Your task to perform on an android device: add a contact Image 0: 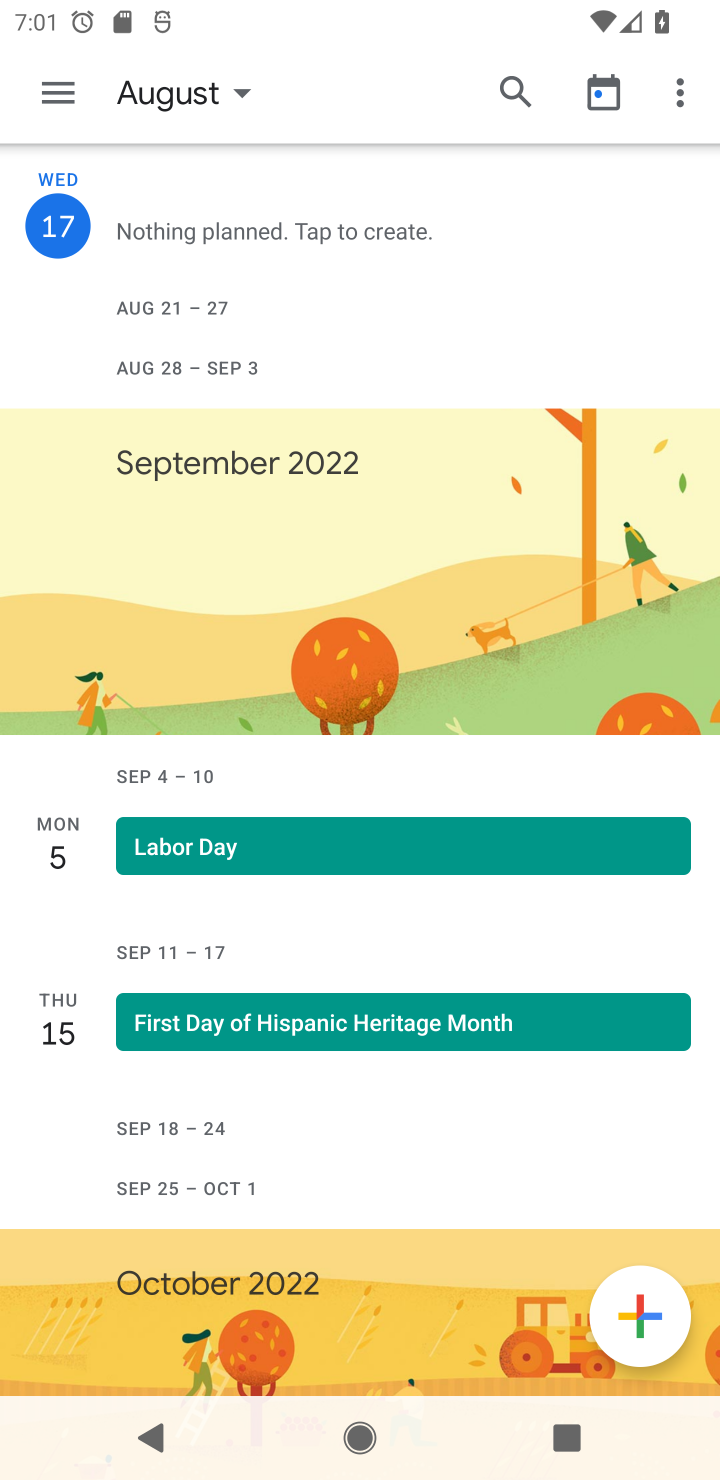
Step 0: press home button
Your task to perform on an android device: add a contact Image 1: 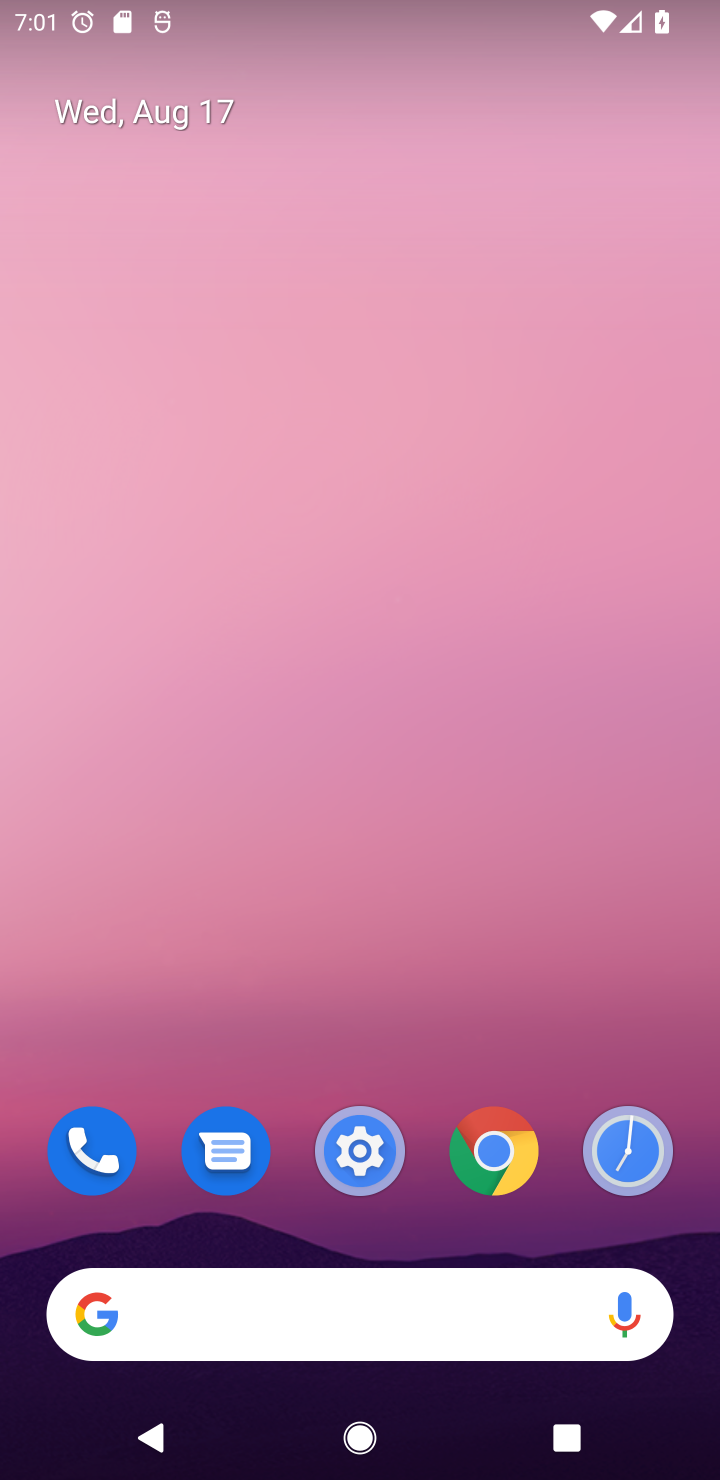
Step 1: drag from (415, 1219) to (437, 715)
Your task to perform on an android device: add a contact Image 2: 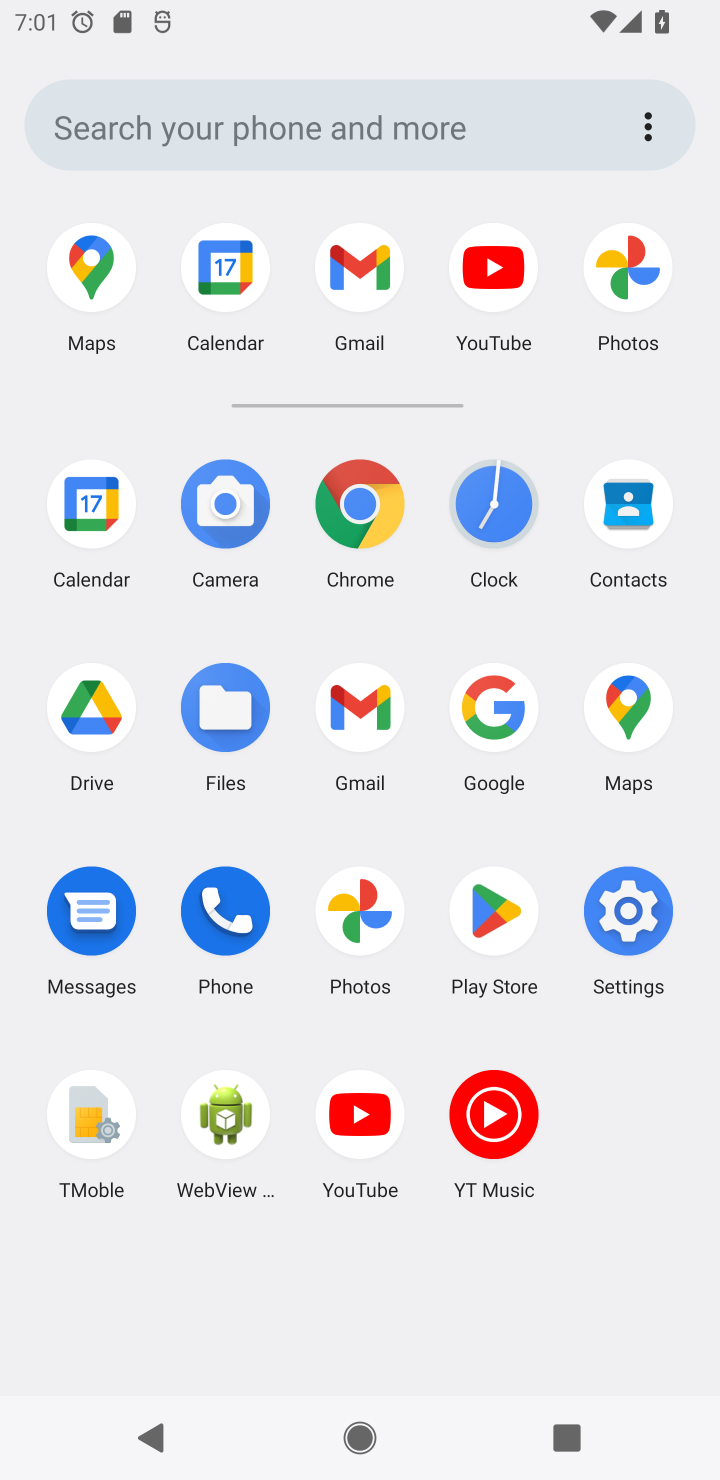
Step 2: click (628, 541)
Your task to perform on an android device: add a contact Image 3: 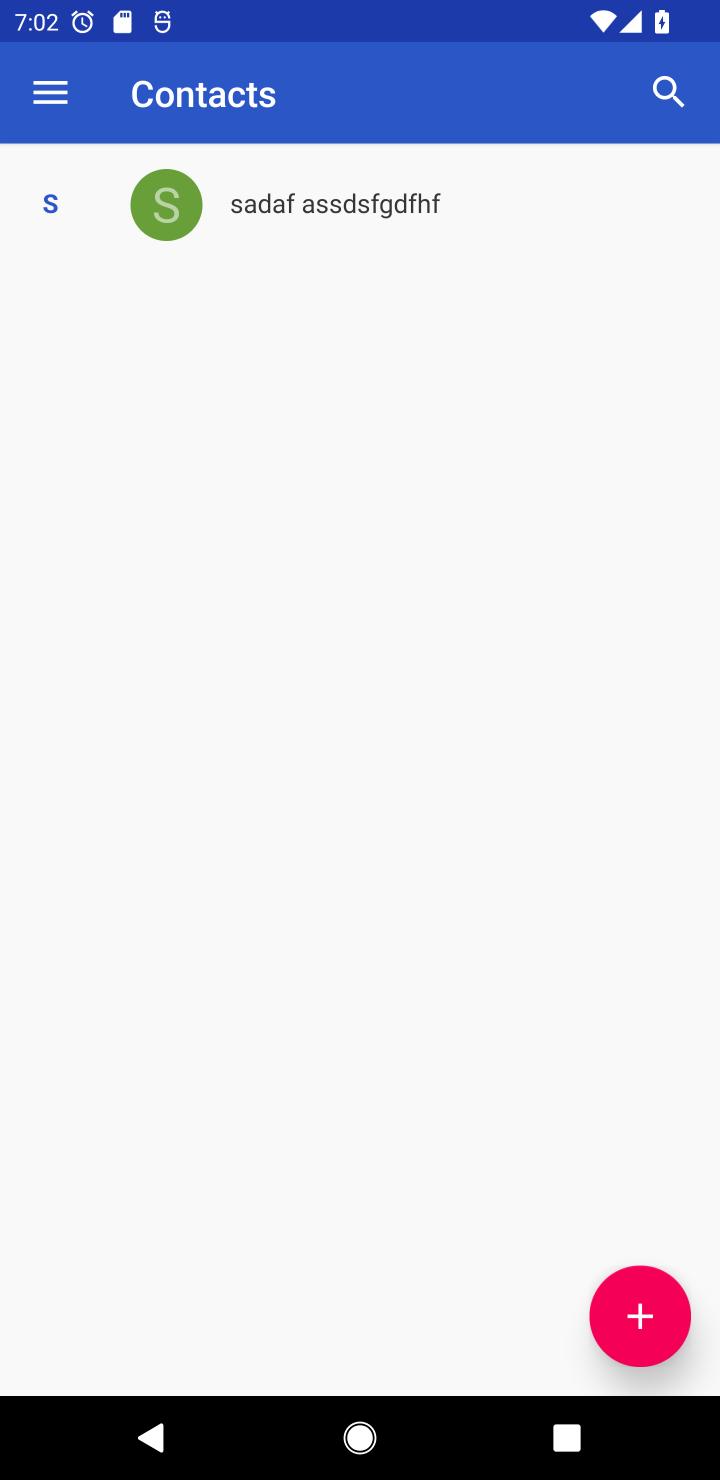
Step 3: click (643, 1284)
Your task to perform on an android device: add a contact Image 4: 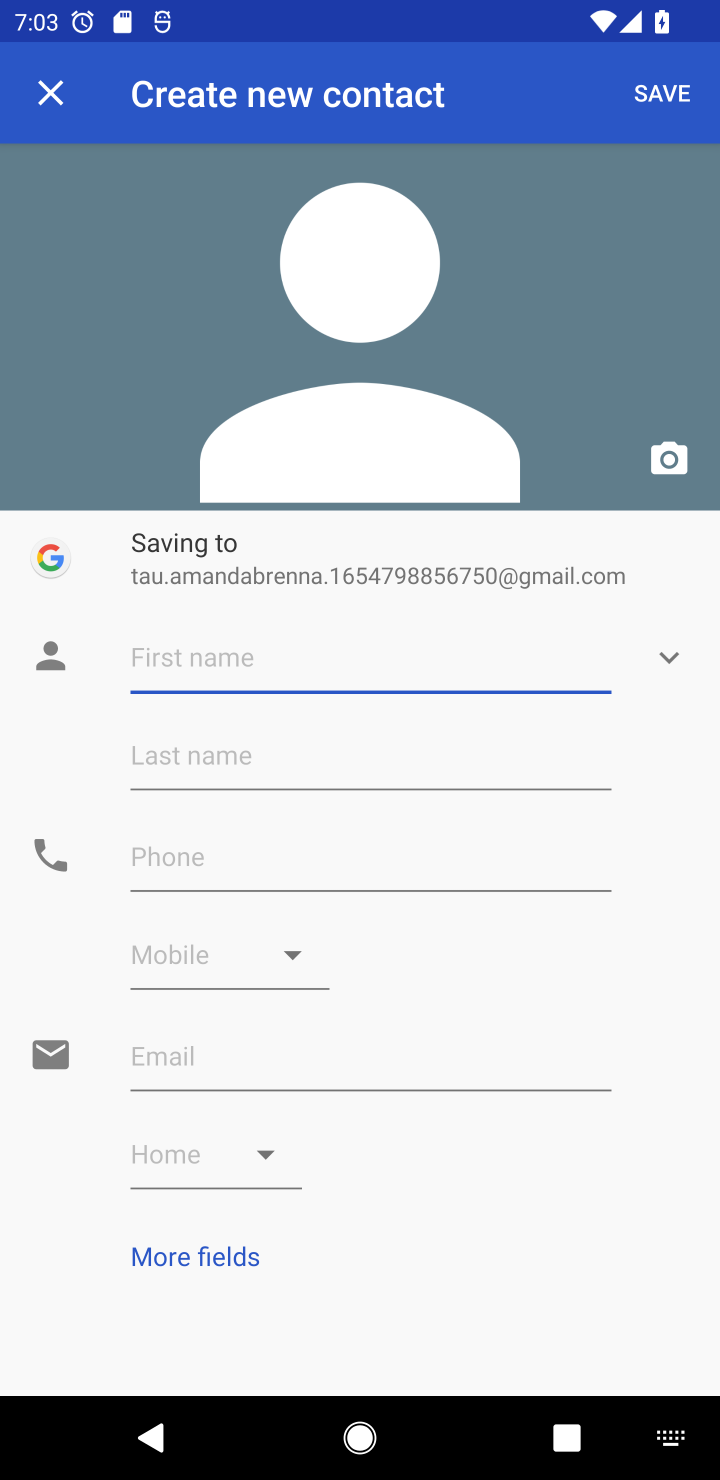
Step 4: type "defwrs"
Your task to perform on an android device: add a contact Image 5: 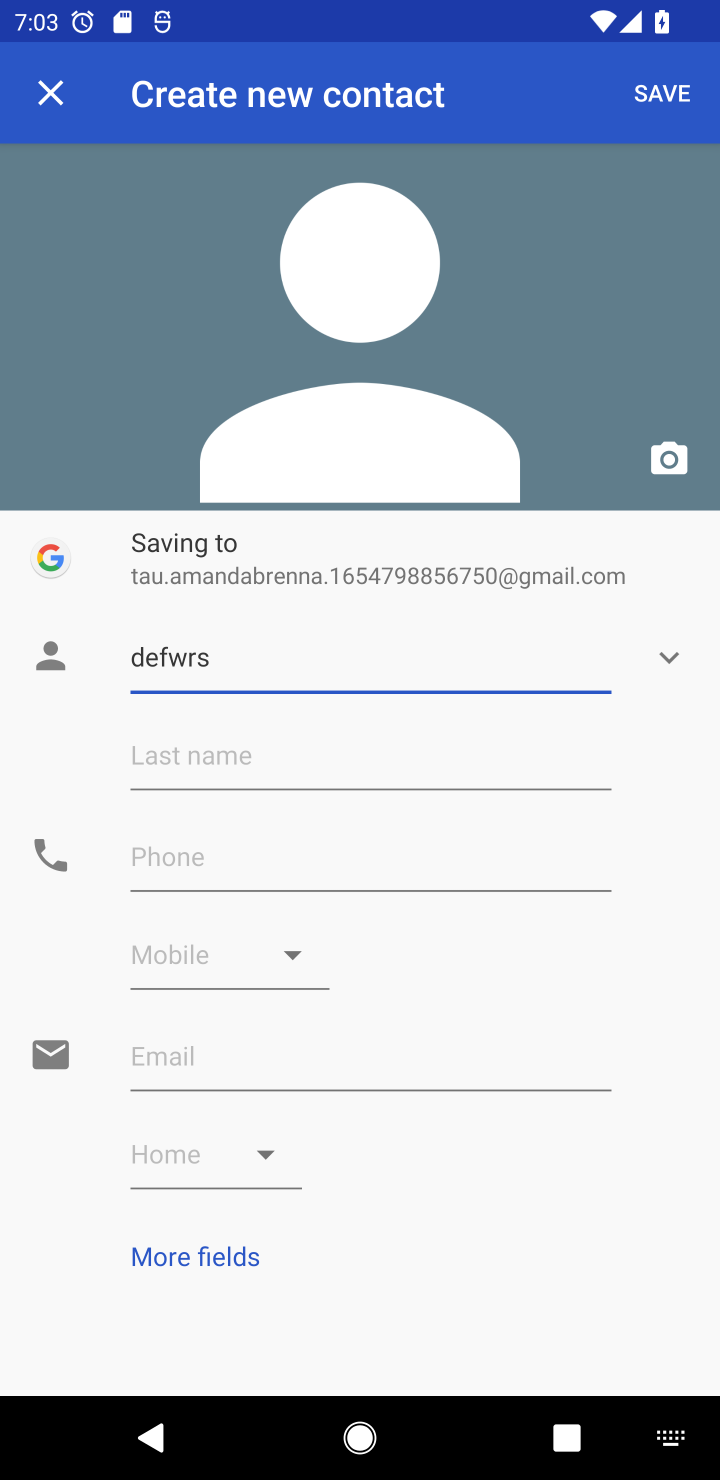
Step 5: click (279, 779)
Your task to perform on an android device: add a contact Image 6: 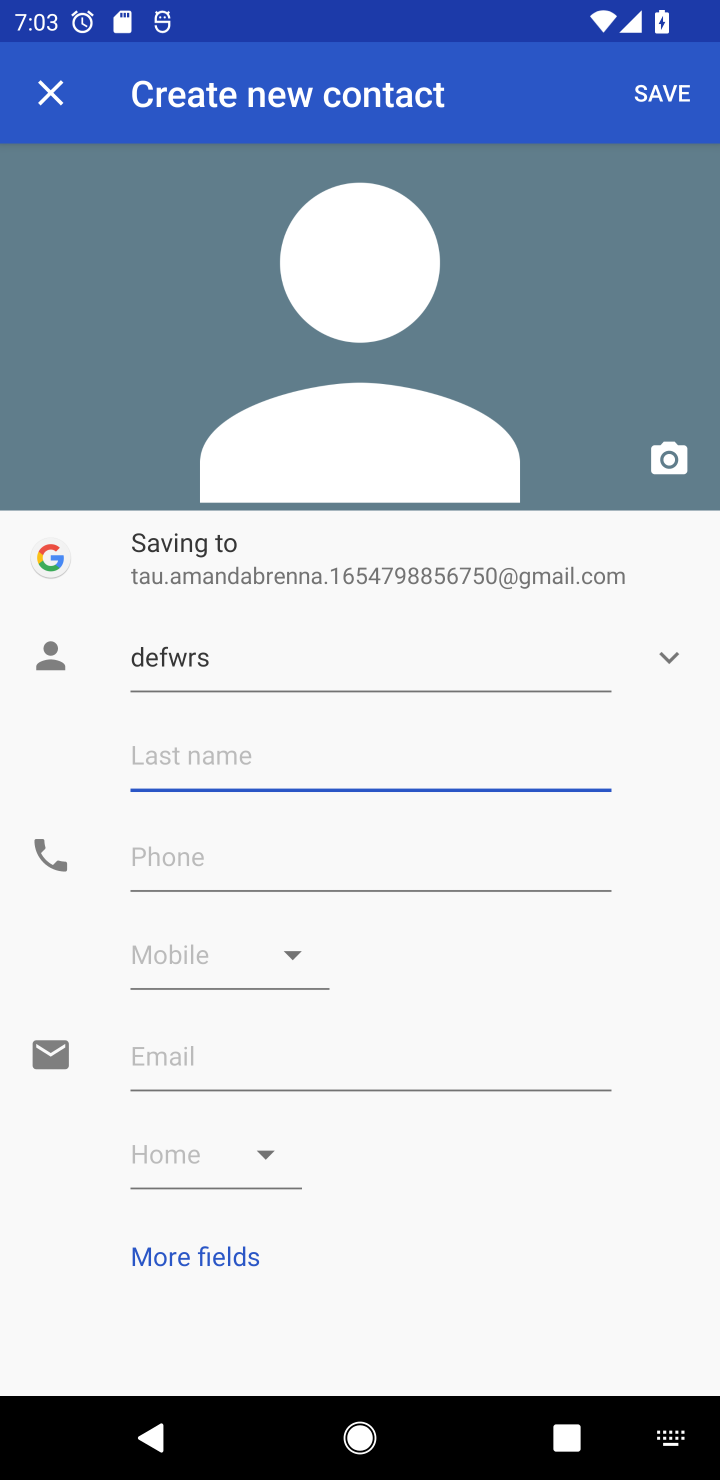
Step 6: type "ascsdf"
Your task to perform on an android device: add a contact Image 7: 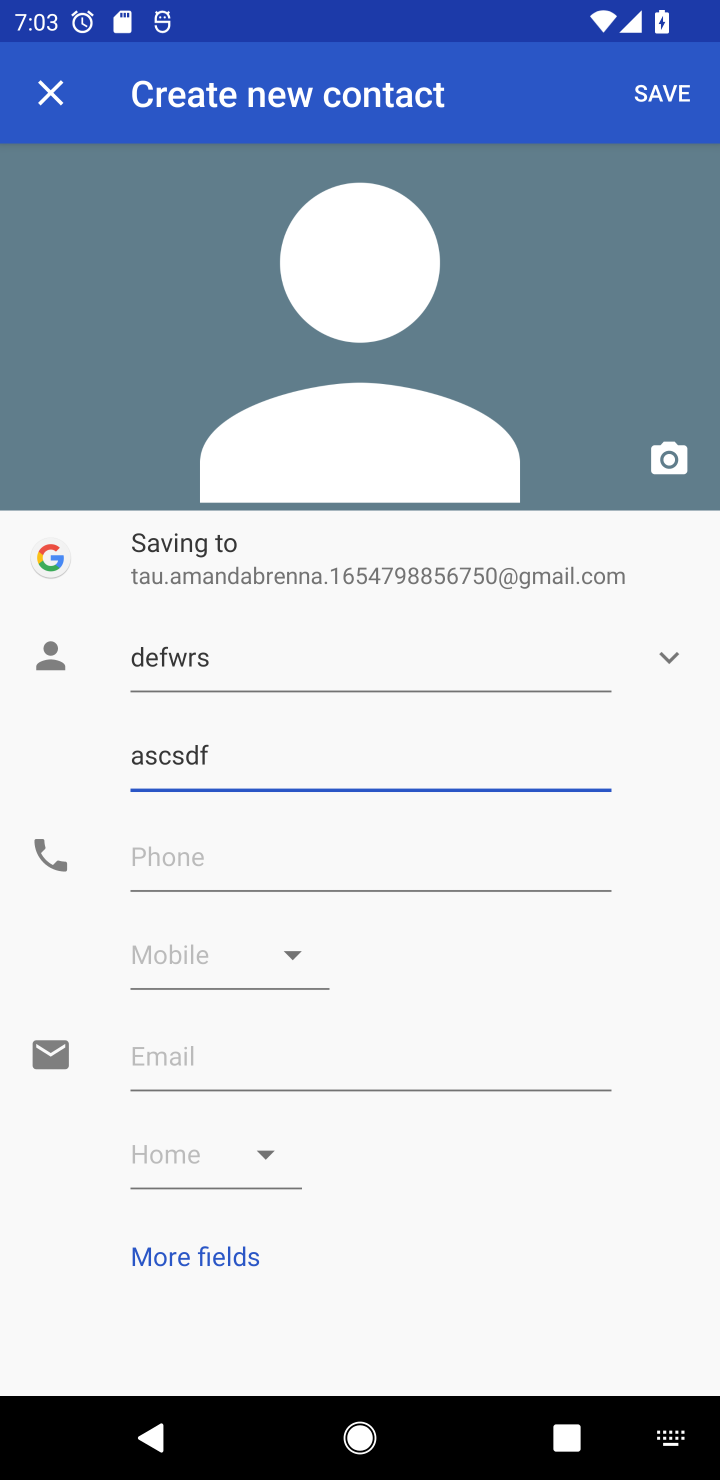
Step 7: click (285, 866)
Your task to perform on an android device: add a contact Image 8: 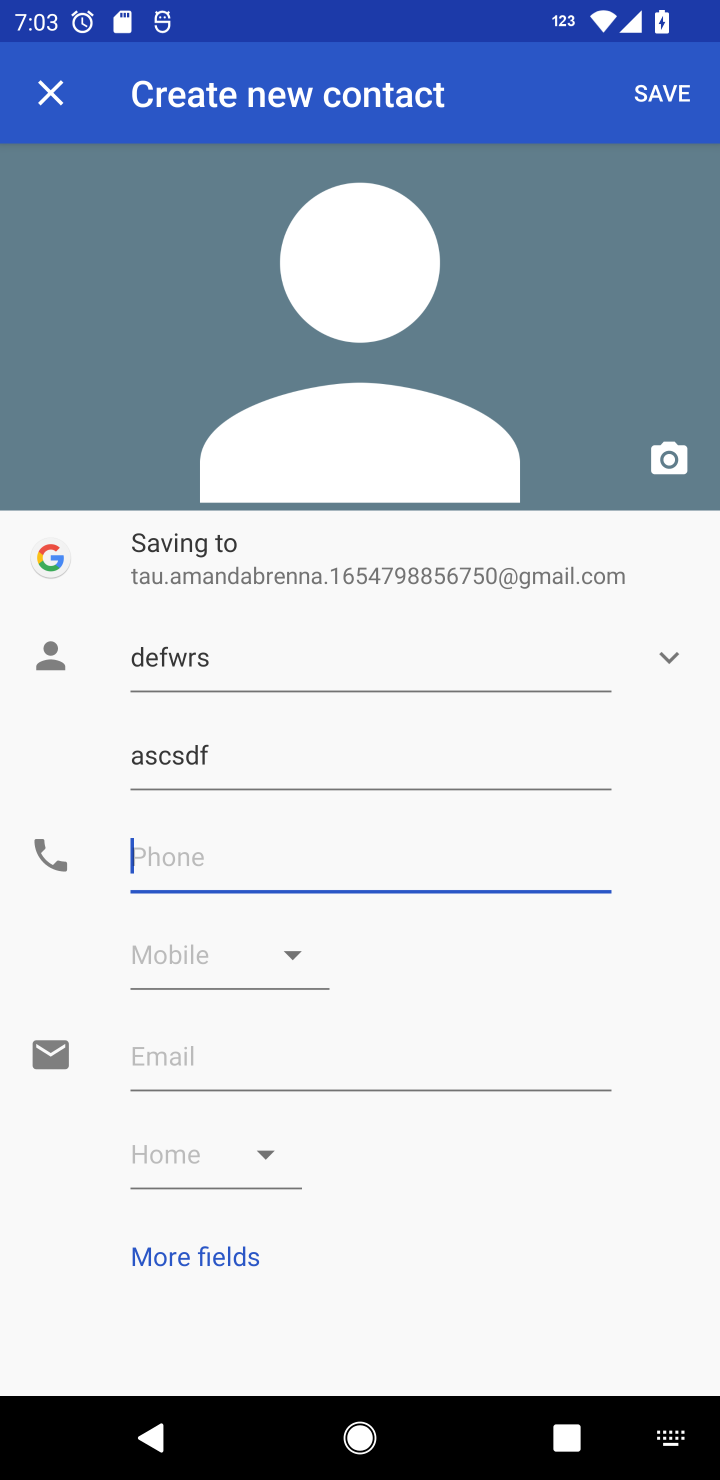
Step 8: click (649, 95)
Your task to perform on an android device: add a contact Image 9: 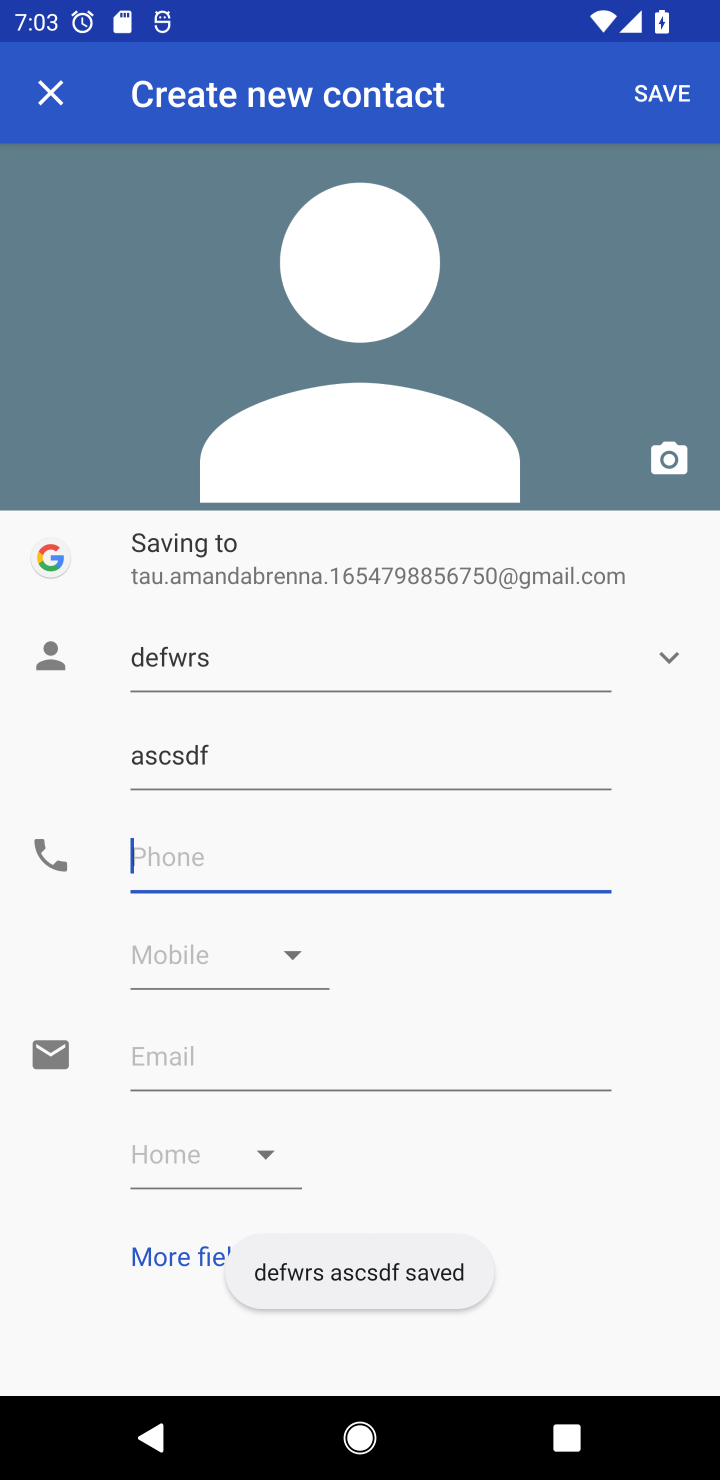
Step 9: task complete